Your task to perform on an android device: Open Google Maps Image 0: 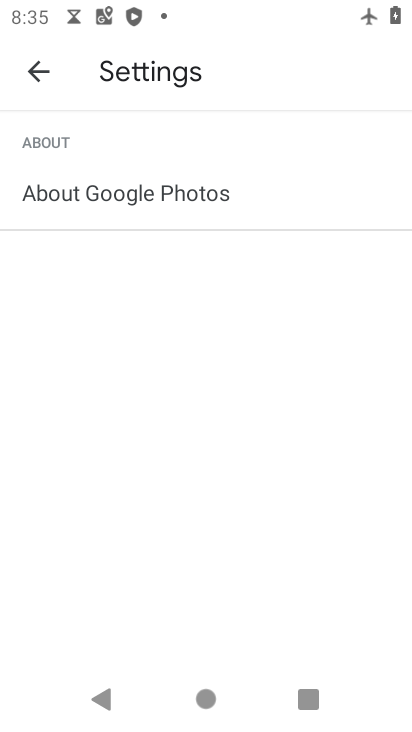
Step 0: press home button
Your task to perform on an android device: Open Google Maps Image 1: 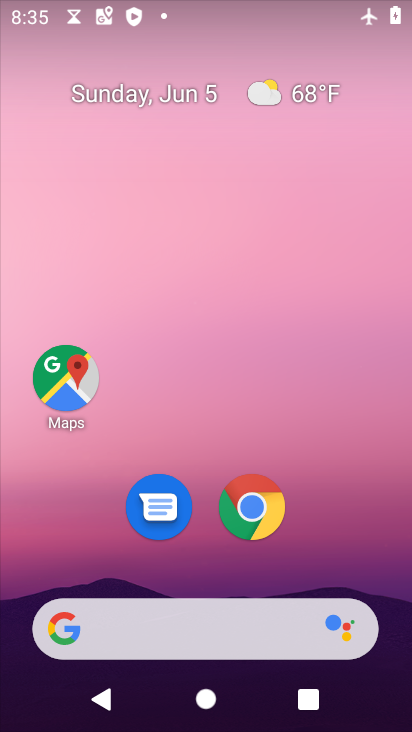
Step 1: click (75, 378)
Your task to perform on an android device: Open Google Maps Image 2: 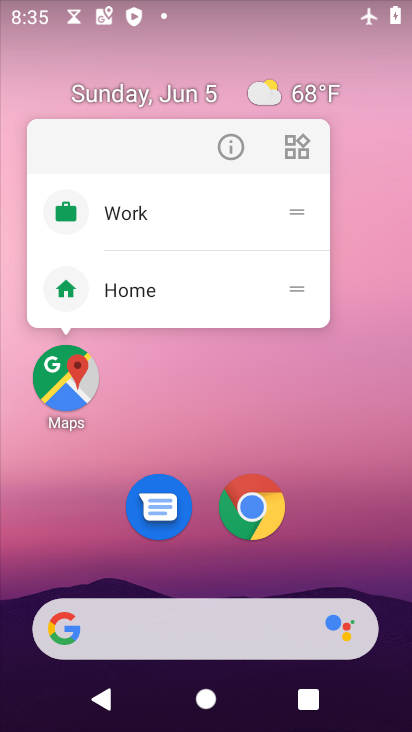
Step 2: click (80, 391)
Your task to perform on an android device: Open Google Maps Image 3: 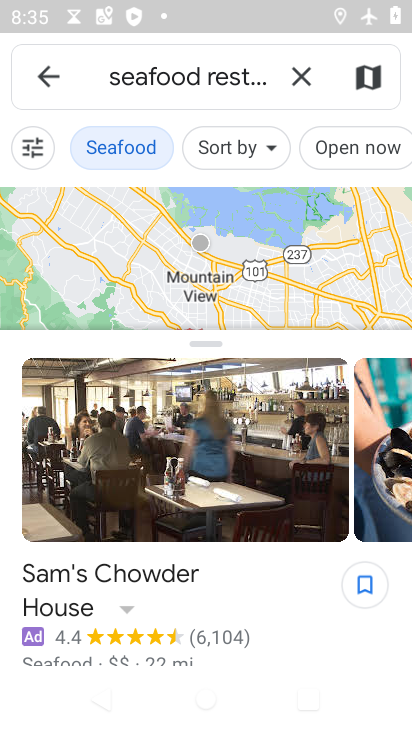
Step 3: task complete